Your task to perform on an android device: find snoozed emails in the gmail app Image 0: 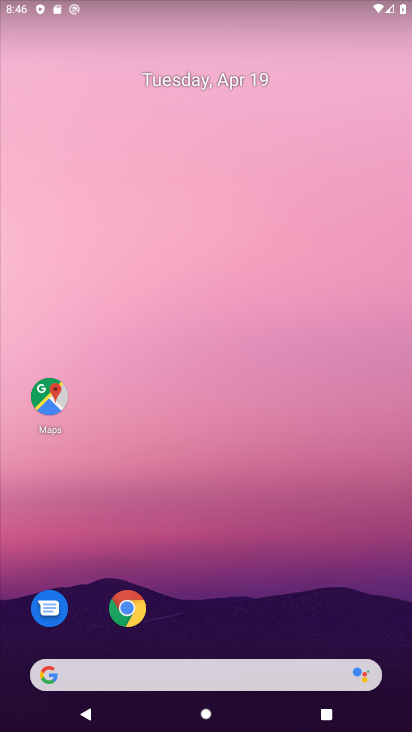
Step 0: drag from (229, 427) to (281, 172)
Your task to perform on an android device: find snoozed emails in the gmail app Image 1: 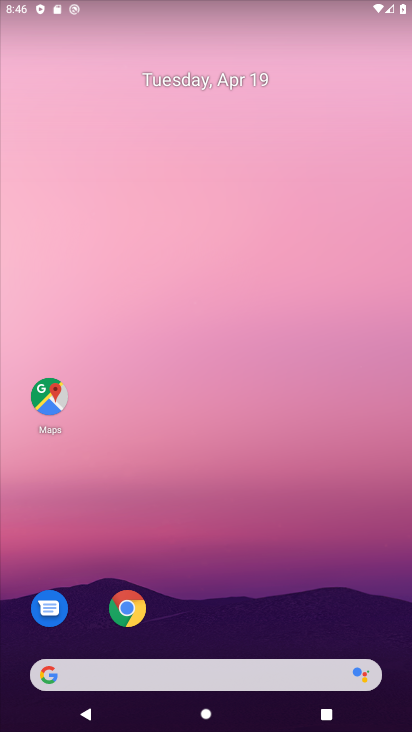
Step 1: drag from (199, 636) to (340, 21)
Your task to perform on an android device: find snoozed emails in the gmail app Image 2: 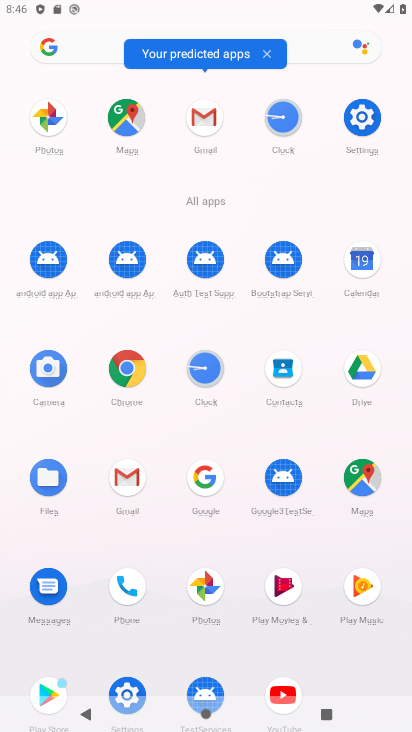
Step 2: click (203, 125)
Your task to perform on an android device: find snoozed emails in the gmail app Image 3: 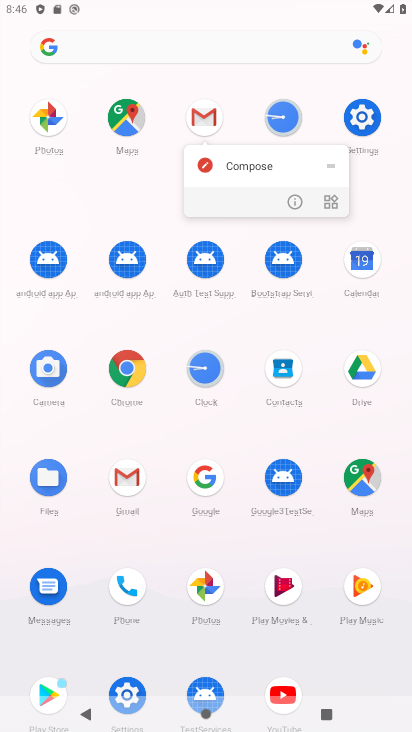
Step 3: click (203, 125)
Your task to perform on an android device: find snoozed emails in the gmail app Image 4: 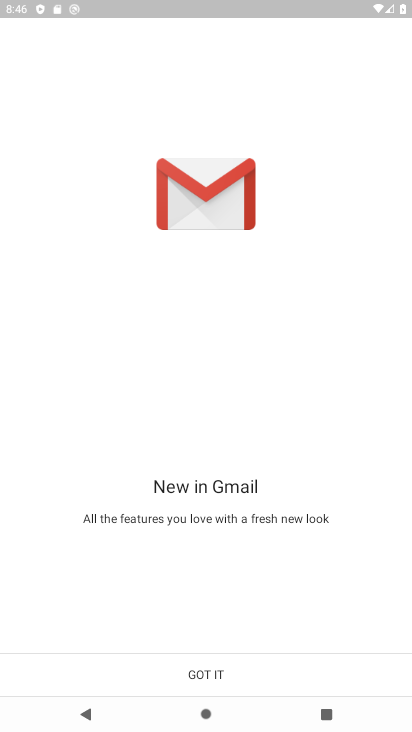
Step 4: click (215, 674)
Your task to perform on an android device: find snoozed emails in the gmail app Image 5: 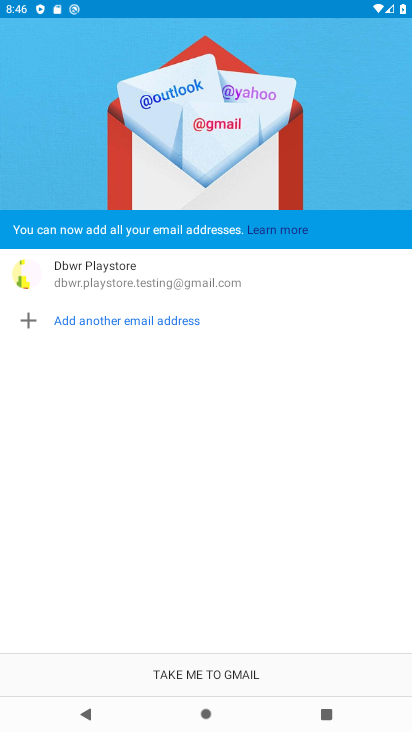
Step 5: click (220, 667)
Your task to perform on an android device: find snoozed emails in the gmail app Image 6: 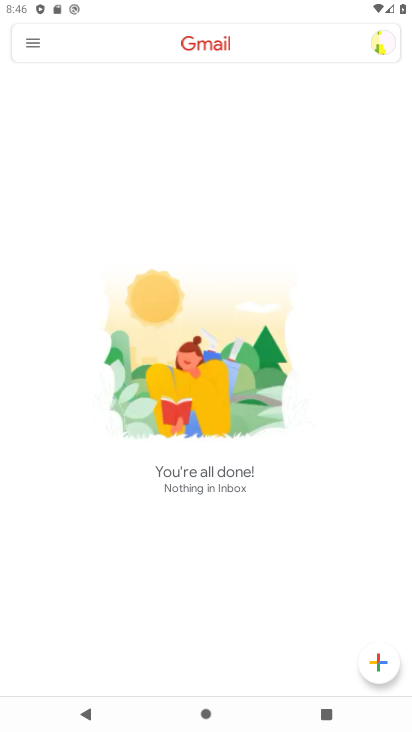
Step 6: click (30, 38)
Your task to perform on an android device: find snoozed emails in the gmail app Image 7: 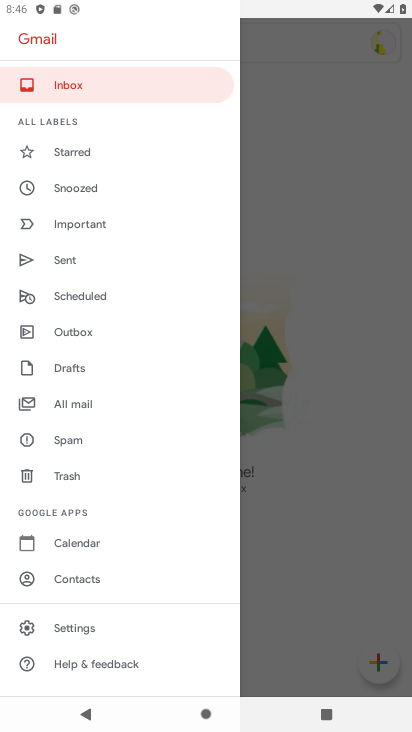
Step 7: click (132, 187)
Your task to perform on an android device: find snoozed emails in the gmail app Image 8: 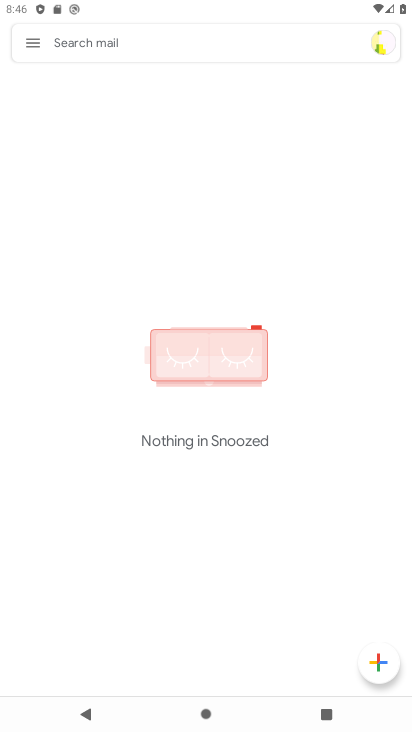
Step 8: task complete